Your task to perform on an android device: Go to location settings Image 0: 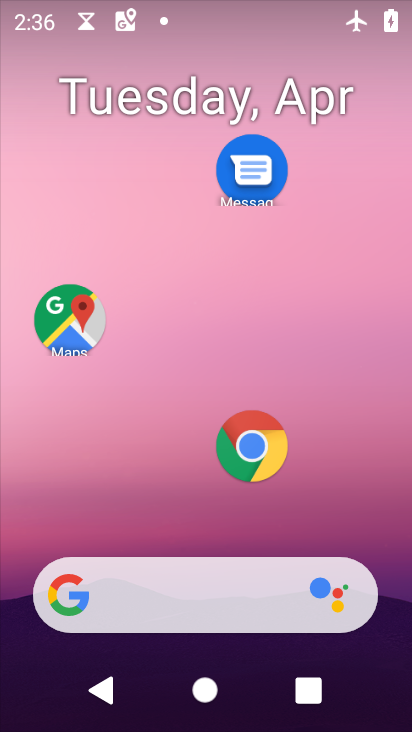
Step 0: drag from (172, 520) to (196, 143)
Your task to perform on an android device: Go to location settings Image 1: 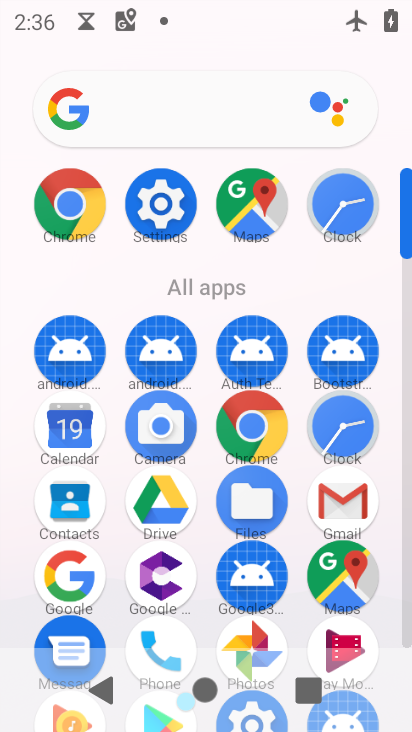
Step 1: click (151, 203)
Your task to perform on an android device: Go to location settings Image 2: 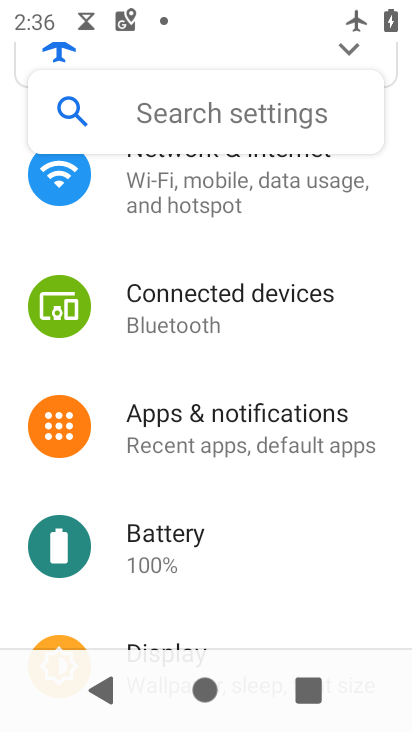
Step 2: drag from (184, 532) to (219, 257)
Your task to perform on an android device: Go to location settings Image 3: 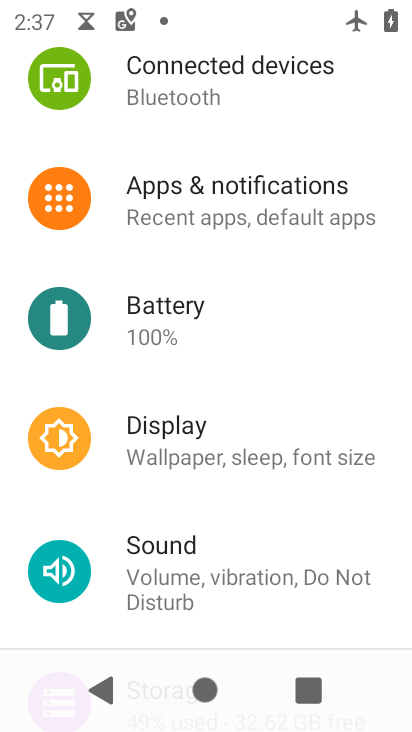
Step 3: drag from (194, 582) to (205, 268)
Your task to perform on an android device: Go to location settings Image 4: 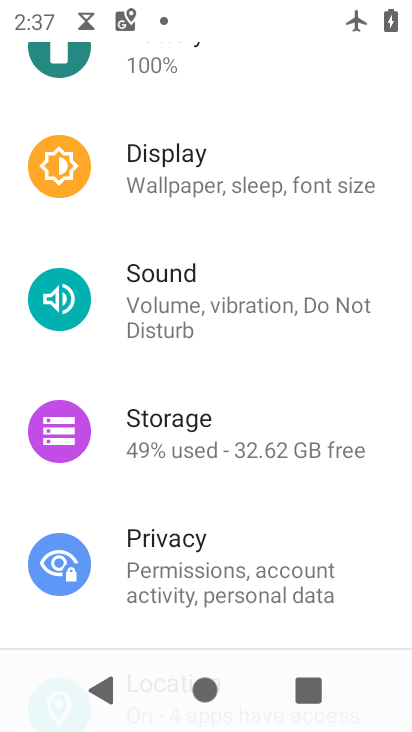
Step 4: drag from (189, 438) to (217, 202)
Your task to perform on an android device: Go to location settings Image 5: 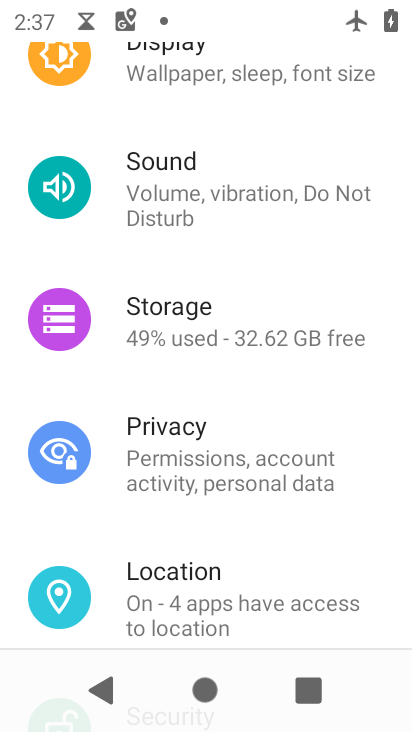
Step 5: click (205, 600)
Your task to perform on an android device: Go to location settings Image 6: 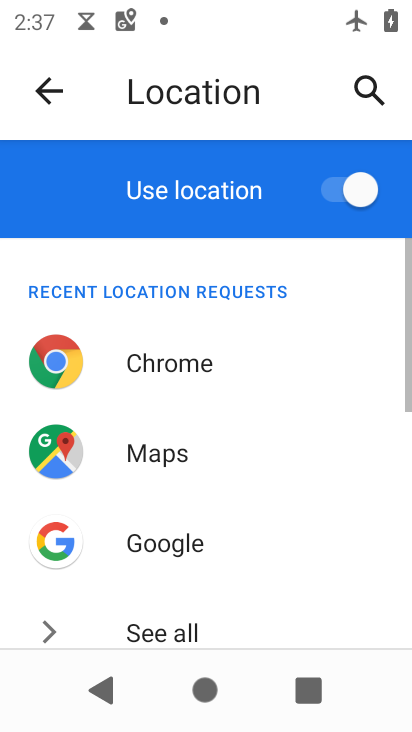
Step 6: task complete